Your task to perform on an android device: check android version Image 0: 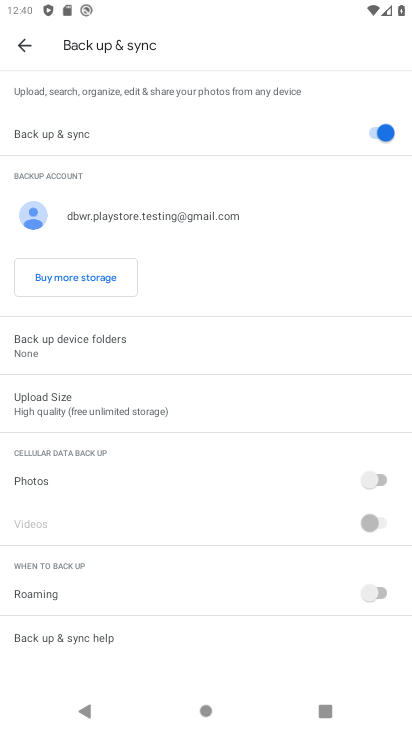
Step 0: press home button
Your task to perform on an android device: check android version Image 1: 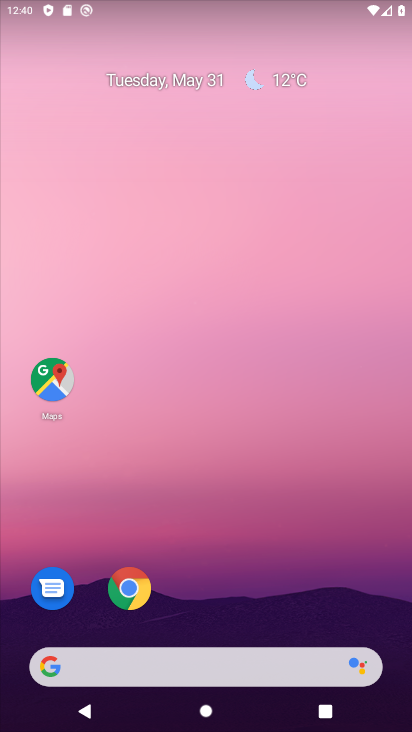
Step 1: drag from (386, 696) to (324, 38)
Your task to perform on an android device: check android version Image 2: 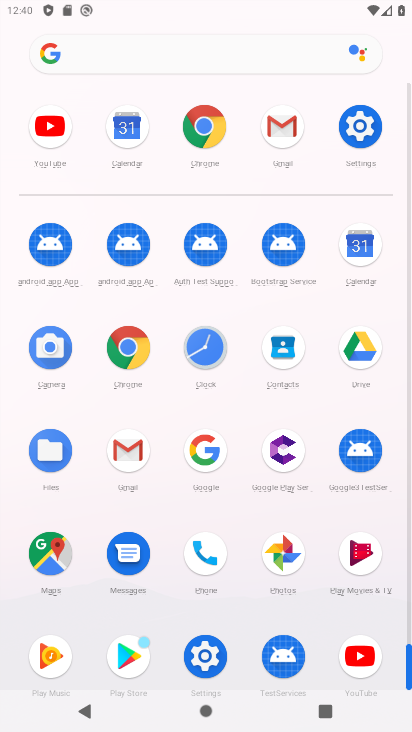
Step 2: click (218, 661)
Your task to perform on an android device: check android version Image 3: 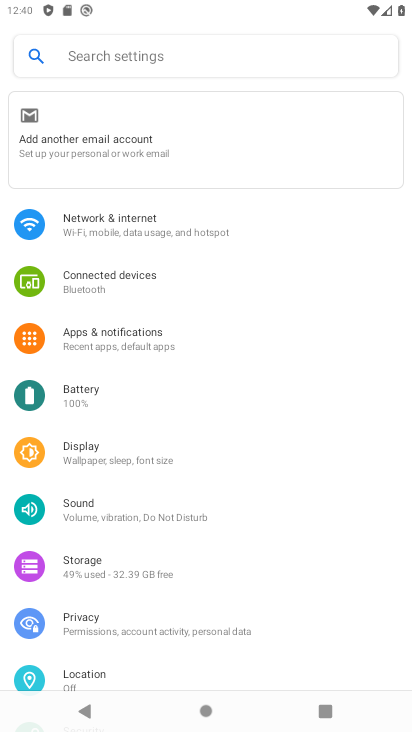
Step 3: drag from (296, 665) to (284, 249)
Your task to perform on an android device: check android version Image 4: 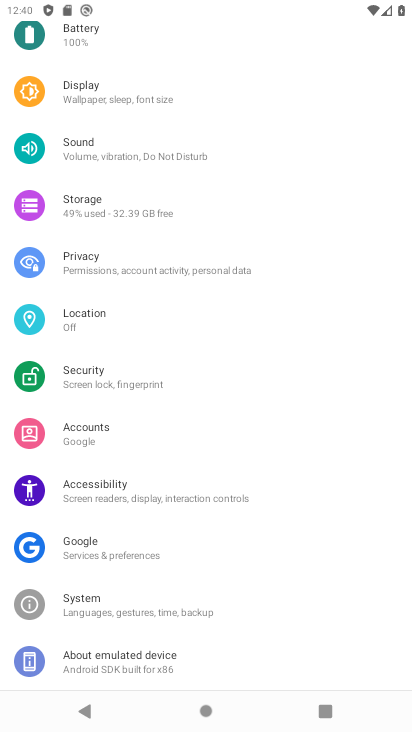
Step 4: drag from (295, 656) to (291, 349)
Your task to perform on an android device: check android version Image 5: 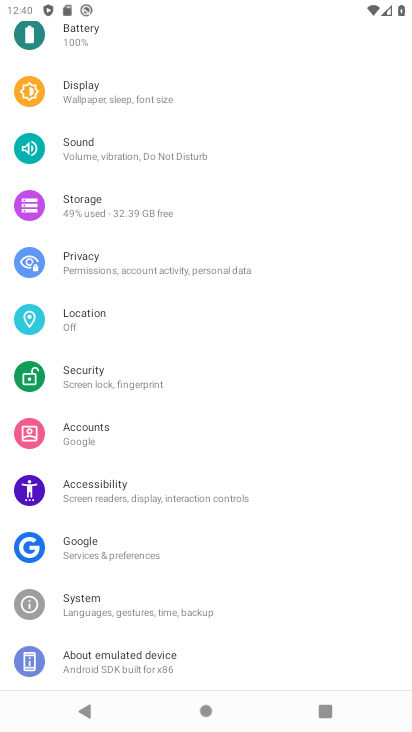
Step 5: click (120, 654)
Your task to perform on an android device: check android version Image 6: 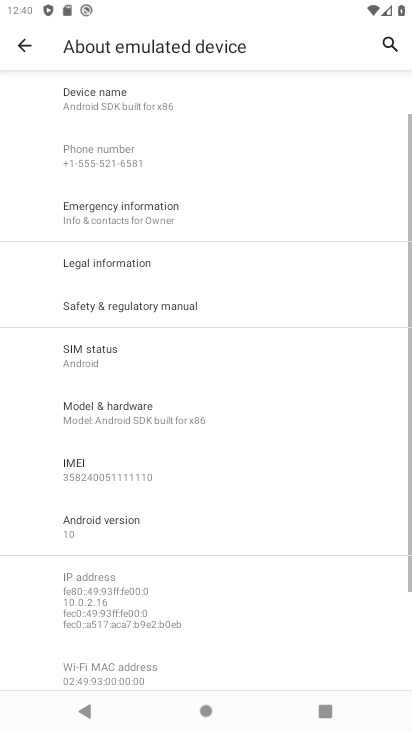
Step 6: drag from (229, 646) to (228, 563)
Your task to perform on an android device: check android version Image 7: 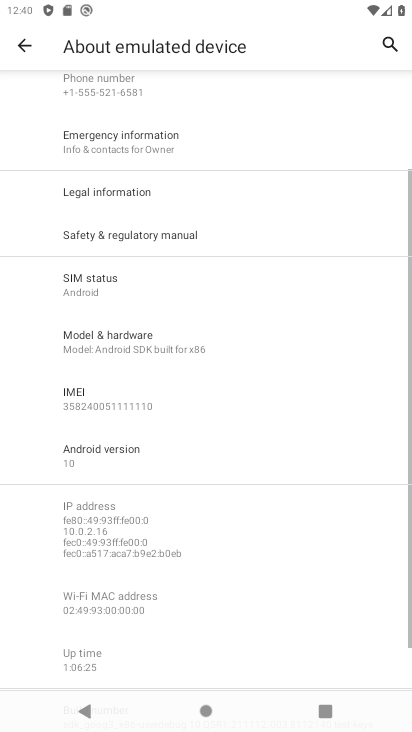
Step 7: click (106, 448)
Your task to perform on an android device: check android version Image 8: 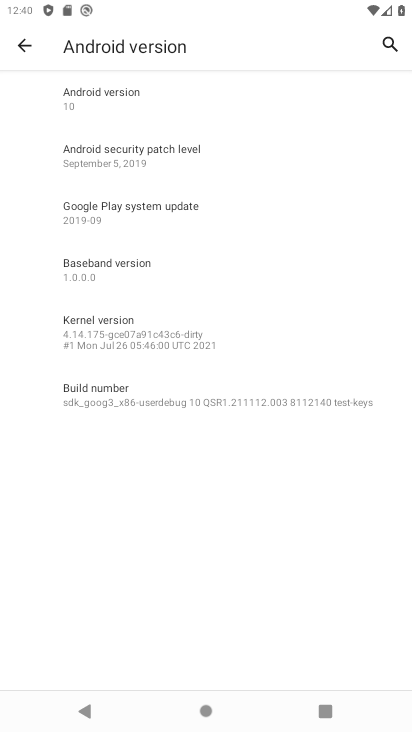
Step 8: task complete